Your task to perform on an android device: open chrome privacy settings Image 0: 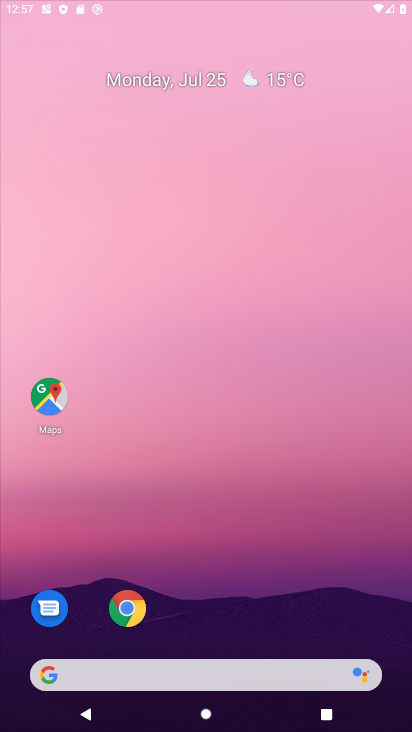
Step 0: drag from (247, 259) to (288, 109)
Your task to perform on an android device: open chrome privacy settings Image 1: 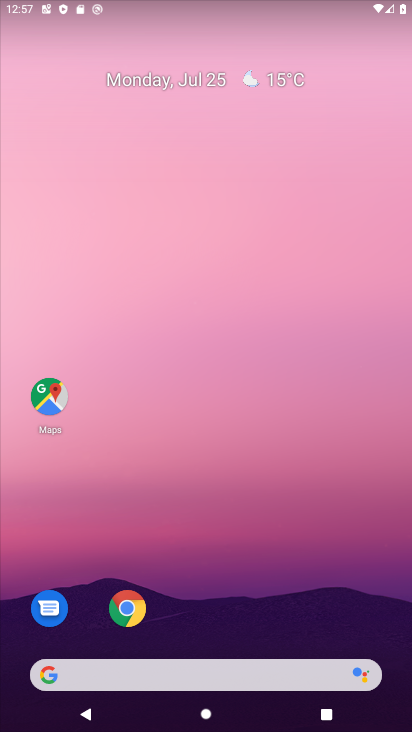
Step 1: drag from (242, 610) to (272, 240)
Your task to perform on an android device: open chrome privacy settings Image 2: 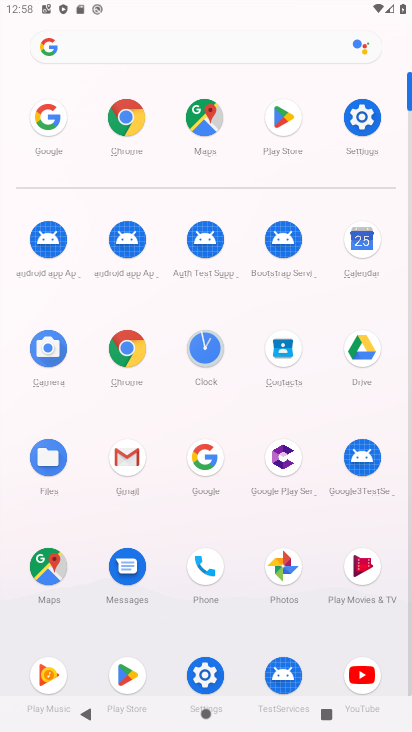
Step 2: click (124, 357)
Your task to perform on an android device: open chrome privacy settings Image 3: 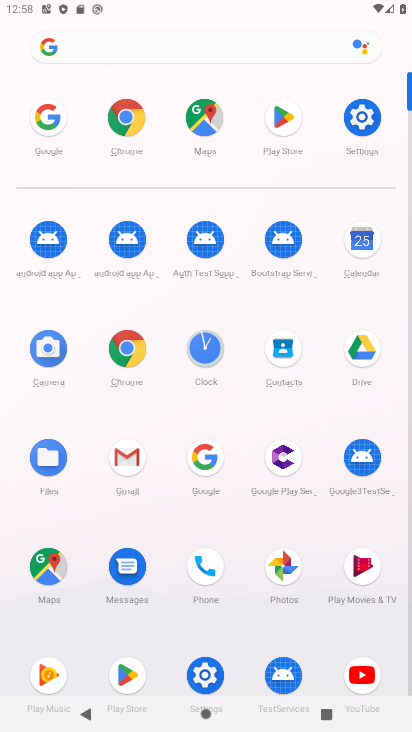
Step 3: click (124, 357)
Your task to perform on an android device: open chrome privacy settings Image 4: 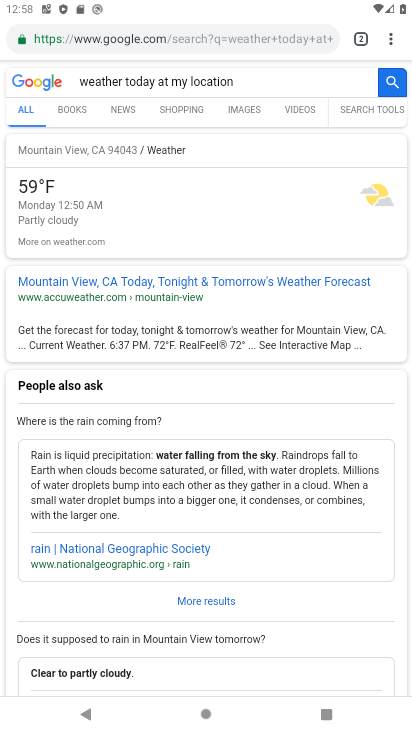
Step 4: click (389, 46)
Your task to perform on an android device: open chrome privacy settings Image 5: 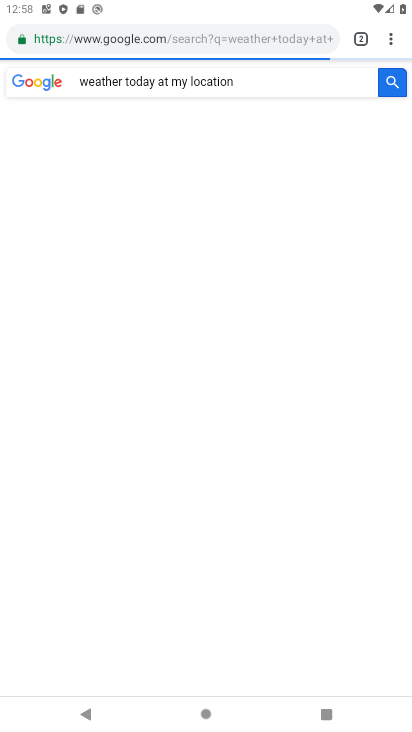
Step 5: click (388, 39)
Your task to perform on an android device: open chrome privacy settings Image 6: 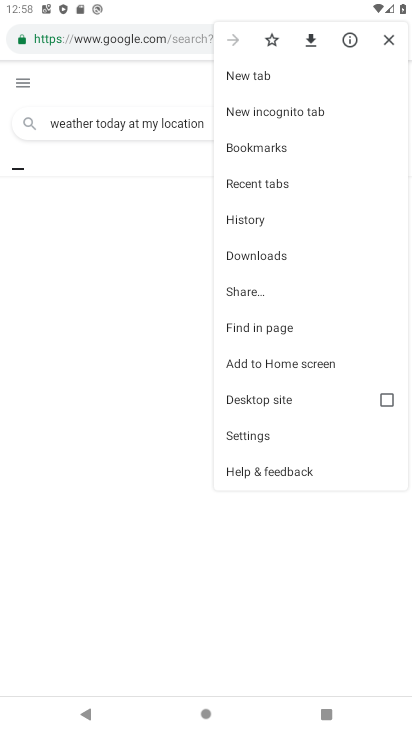
Step 6: click (254, 433)
Your task to perform on an android device: open chrome privacy settings Image 7: 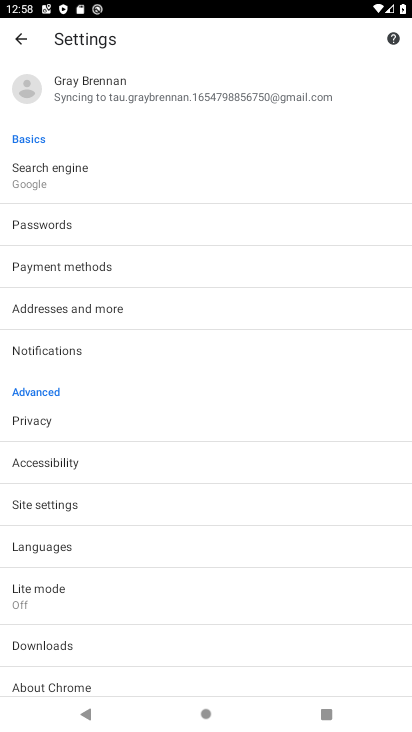
Step 7: click (101, 428)
Your task to perform on an android device: open chrome privacy settings Image 8: 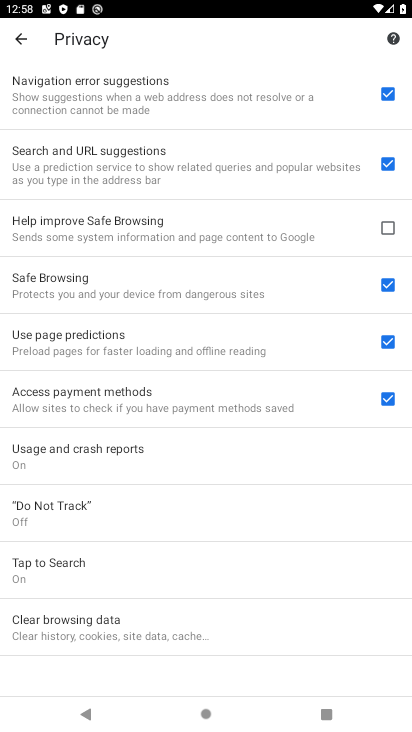
Step 8: task complete